Your task to perform on an android device: Open maps Image 0: 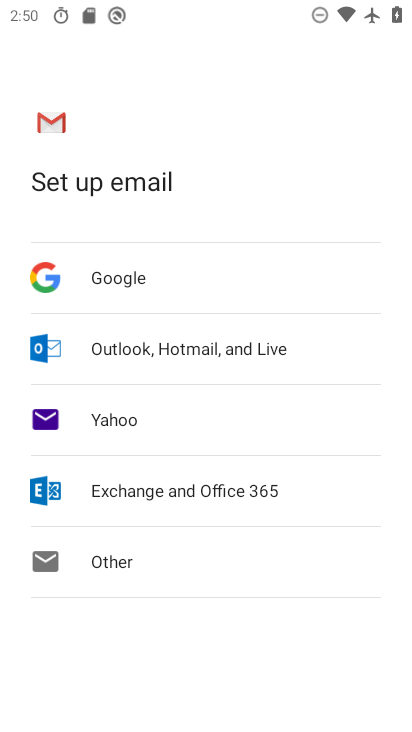
Step 0: press home button
Your task to perform on an android device: Open maps Image 1: 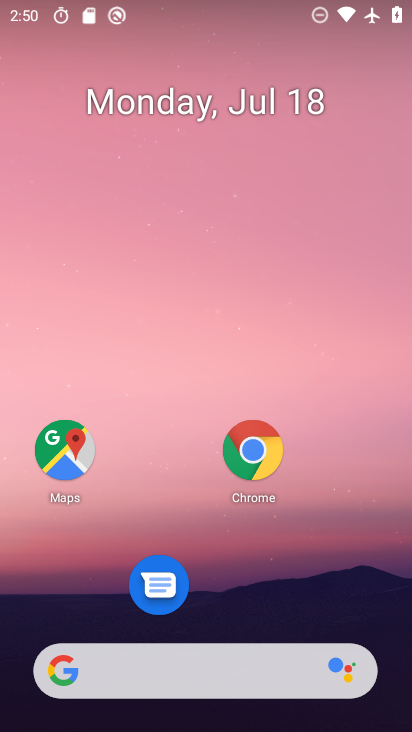
Step 1: click (57, 446)
Your task to perform on an android device: Open maps Image 2: 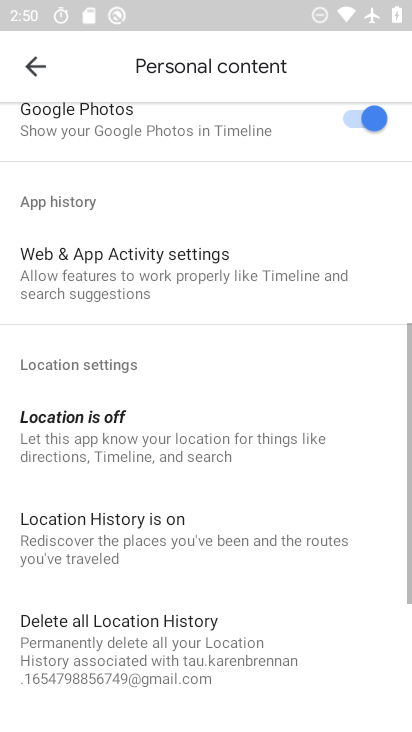
Step 2: click (39, 63)
Your task to perform on an android device: Open maps Image 3: 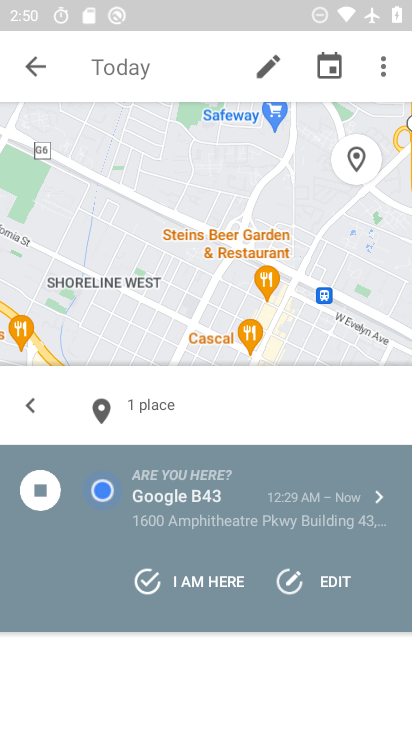
Step 3: click (39, 60)
Your task to perform on an android device: Open maps Image 4: 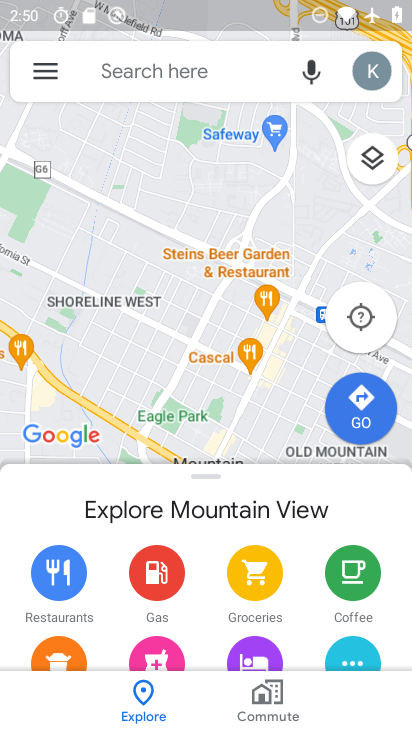
Step 4: task complete